Your task to perform on an android device: turn notification dots on Image 0: 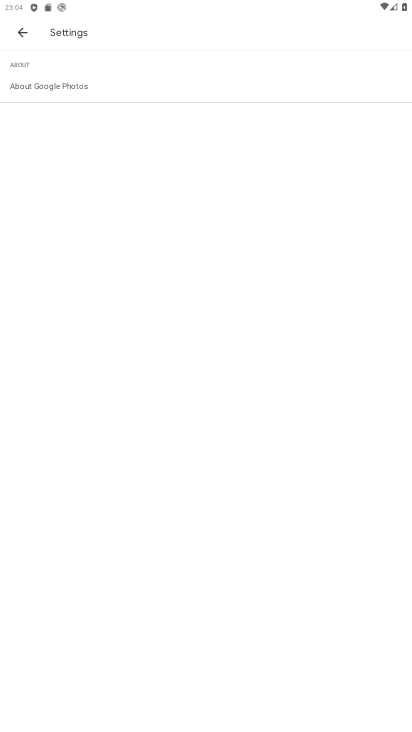
Step 0: press home button
Your task to perform on an android device: turn notification dots on Image 1: 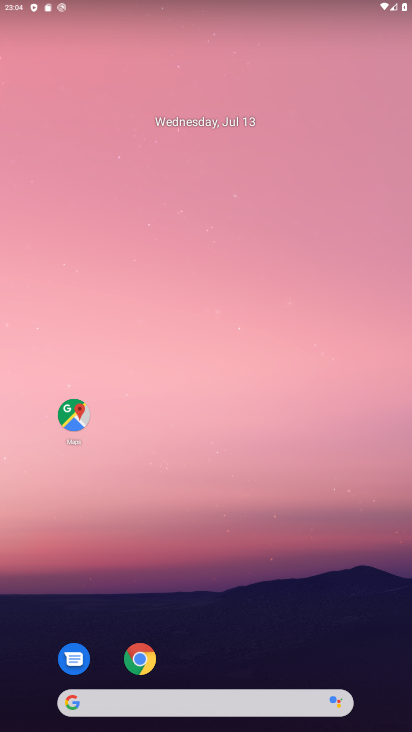
Step 1: drag from (377, 658) to (329, 190)
Your task to perform on an android device: turn notification dots on Image 2: 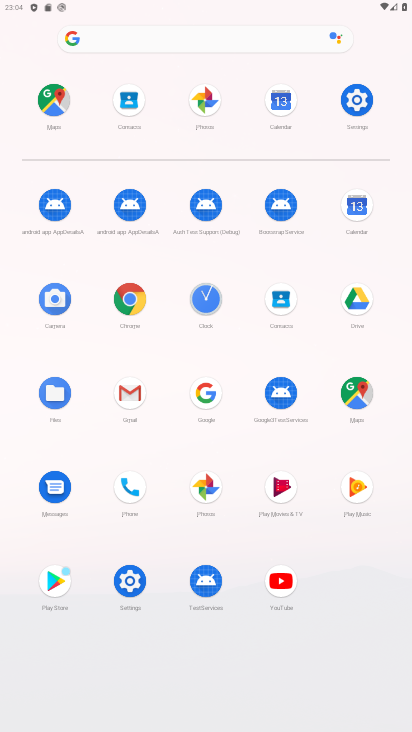
Step 2: click (129, 580)
Your task to perform on an android device: turn notification dots on Image 3: 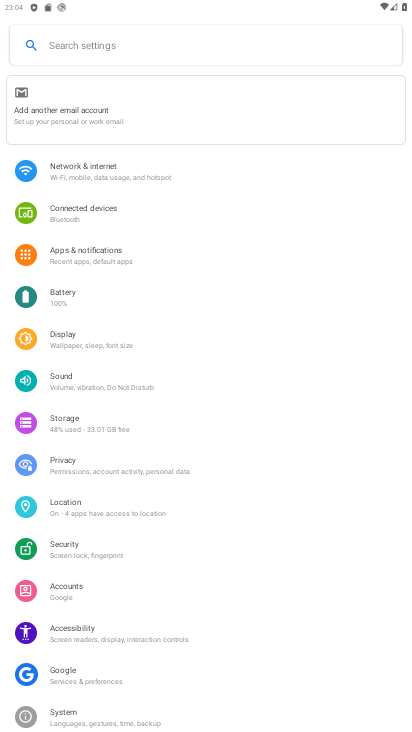
Step 3: click (78, 253)
Your task to perform on an android device: turn notification dots on Image 4: 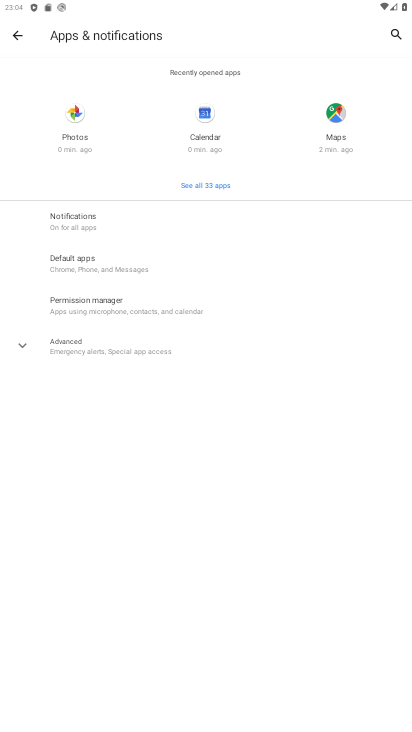
Step 4: click (74, 216)
Your task to perform on an android device: turn notification dots on Image 5: 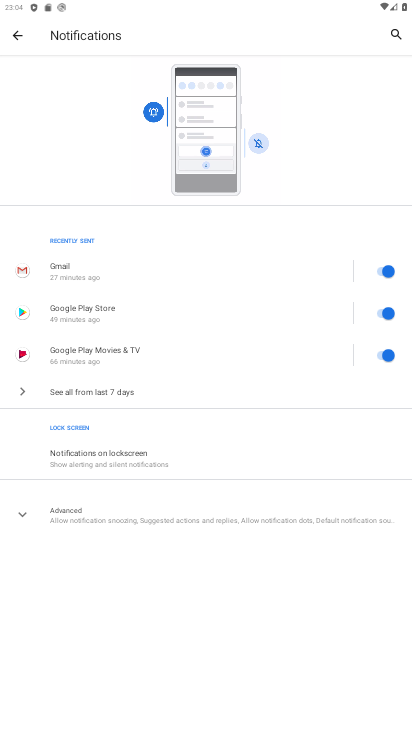
Step 5: click (17, 515)
Your task to perform on an android device: turn notification dots on Image 6: 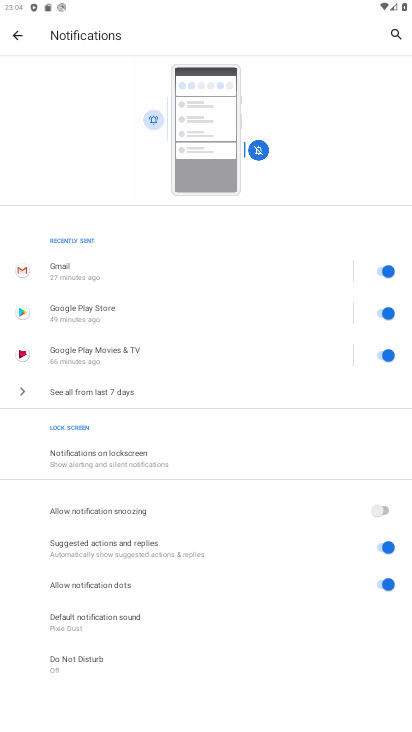
Step 6: task complete